Your task to perform on an android device: Go to Reddit.com Image 0: 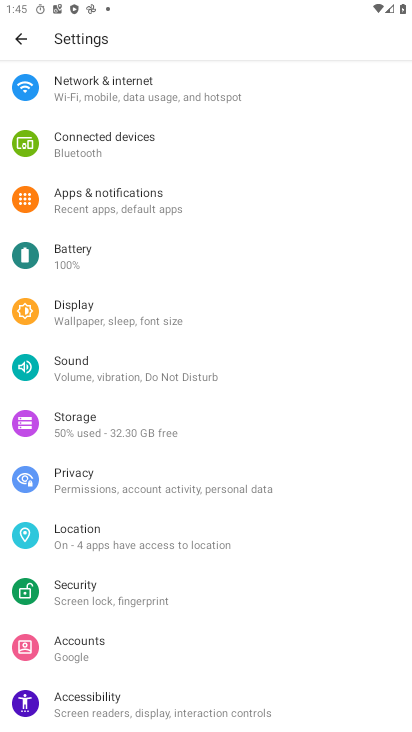
Step 0: press home button
Your task to perform on an android device: Go to Reddit.com Image 1: 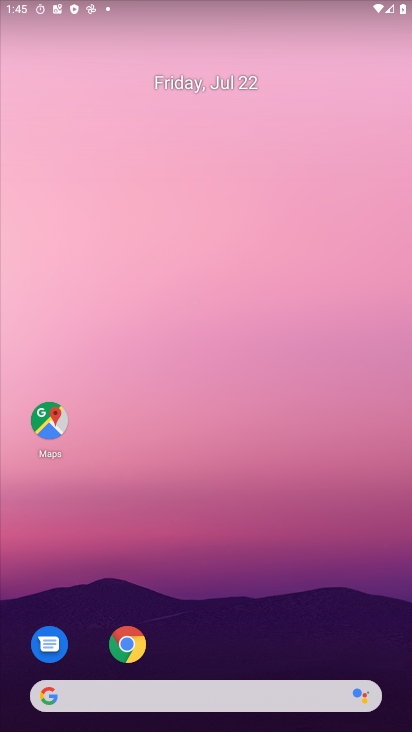
Step 1: drag from (288, 628) to (314, 27)
Your task to perform on an android device: Go to Reddit.com Image 2: 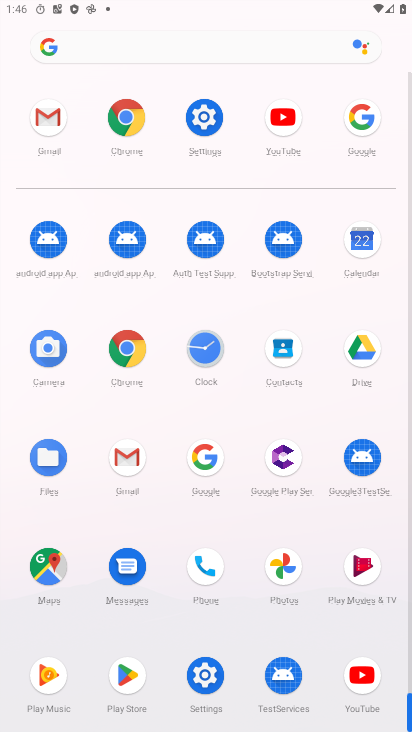
Step 2: click (129, 134)
Your task to perform on an android device: Go to Reddit.com Image 3: 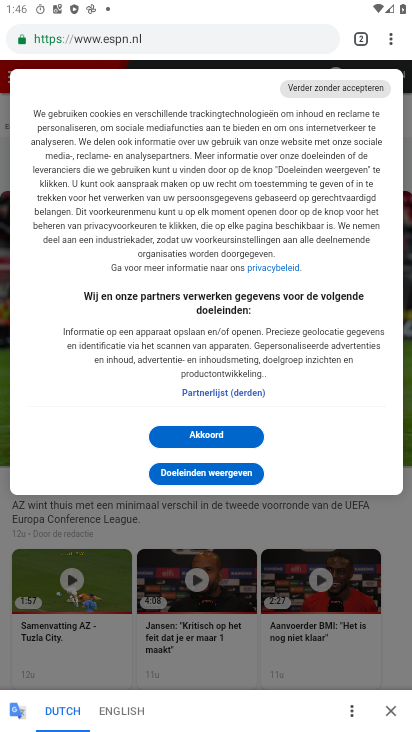
Step 3: click (207, 34)
Your task to perform on an android device: Go to Reddit.com Image 4: 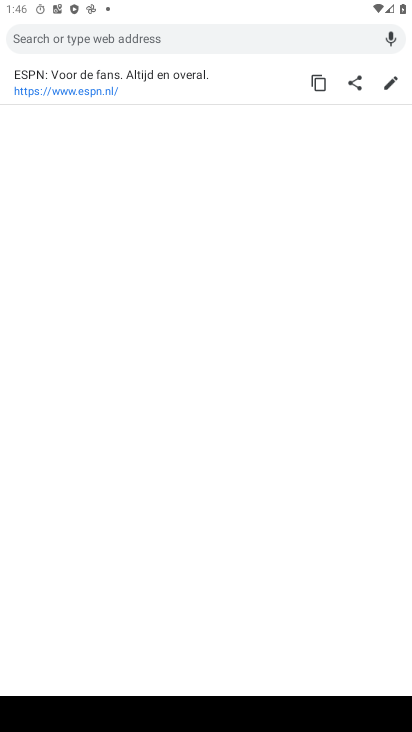
Step 4: type "reddit"
Your task to perform on an android device: Go to Reddit.com Image 5: 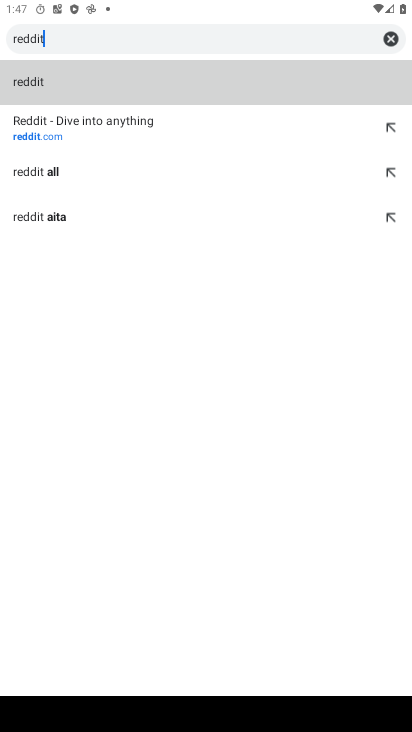
Step 5: click (96, 133)
Your task to perform on an android device: Go to Reddit.com Image 6: 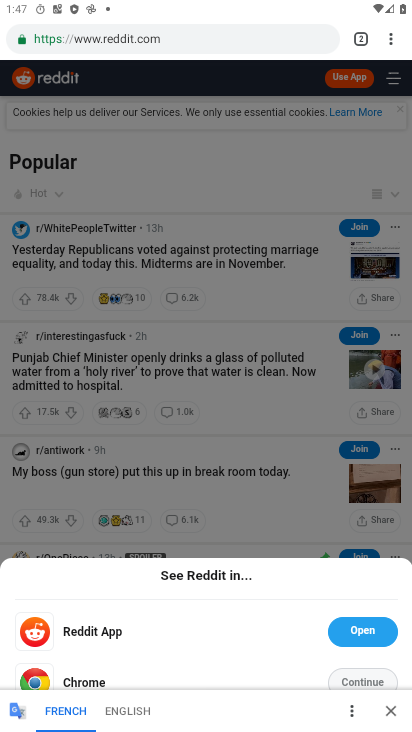
Step 6: task complete